Your task to perform on an android device: Open calendar and show me the third week of next month Image 0: 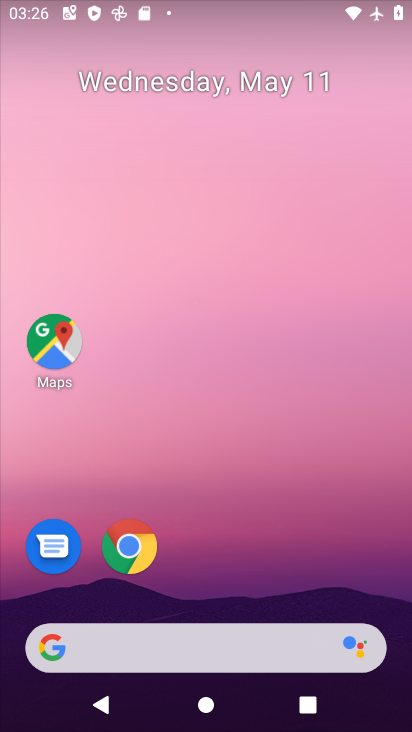
Step 0: drag from (228, 590) to (282, 181)
Your task to perform on an android device: Open calendar and show me the third week of next month Image 1: 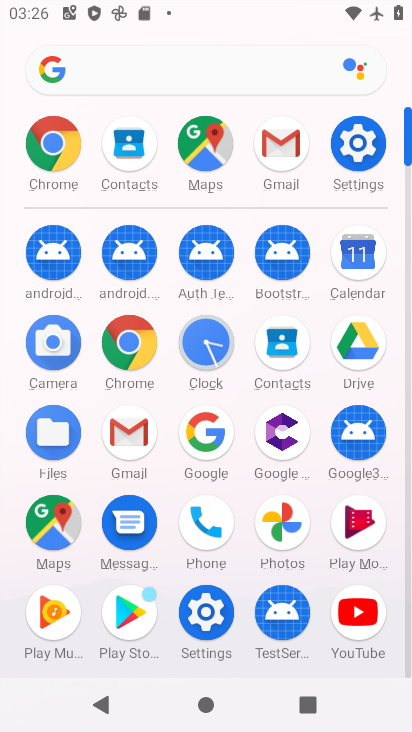
Step 1: click (348, 264)
Your task to perform on an android device: Open calendar and show me the third week of next month Image 2: 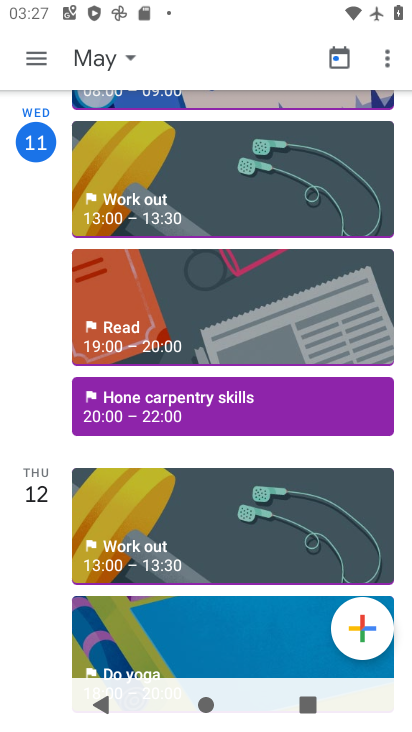
Step 2: click (121, 69)
Your task to perform on an android device: Open calendar and show me the third week of next month Image 3: 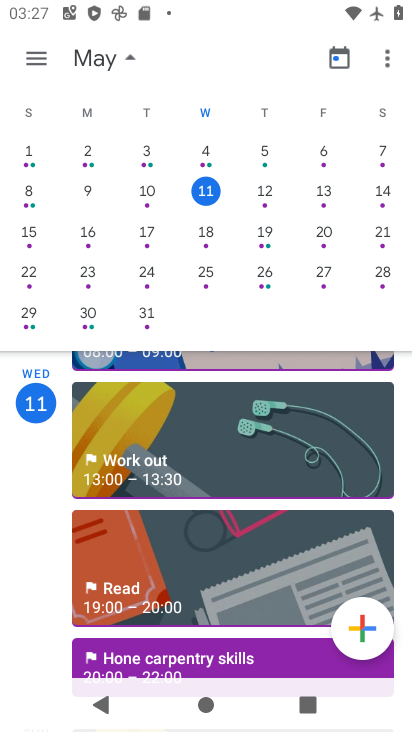
Step 3: click (199, 237)
Your task to perform on an android device: Open calendar and show me the third week of next month Image 4: 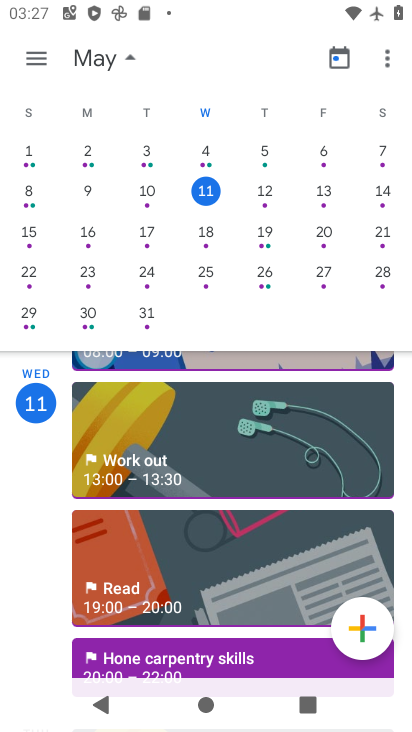
Step 4: click (199, 237)
Your task to perform on an android device: Open calendar and show me the third week of next month Image 5: 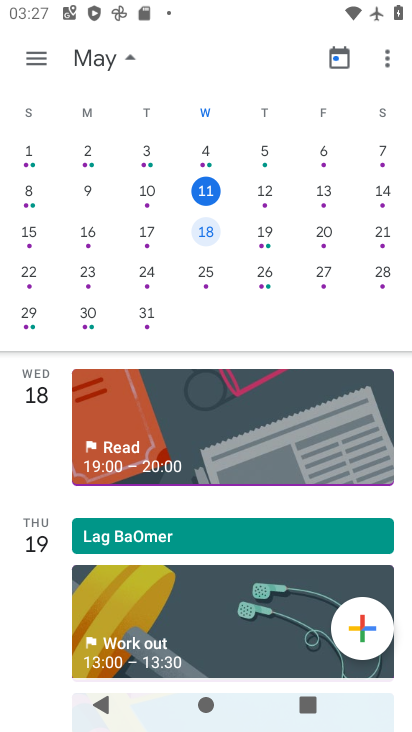
Step 5: drag from (360, 255) to (0, 272)
Your task to perform on an android device: Open calendar and show me the third week of next month Image 6: 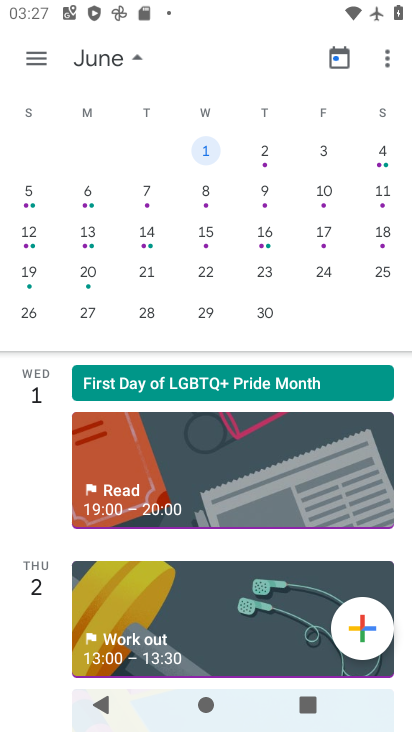
Step 6: click (207, 233)
Your task to perform on an android device: Open calendar and show me the third week of next month Image 7: 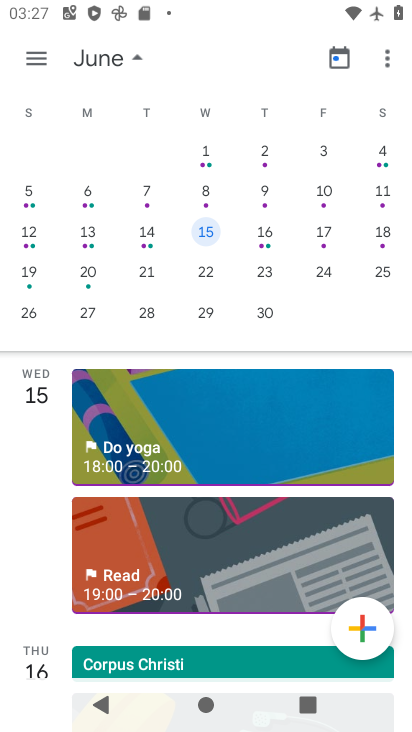
Step 7: task complete